Your task to perform on an android device: set the stopwatch Image 0: 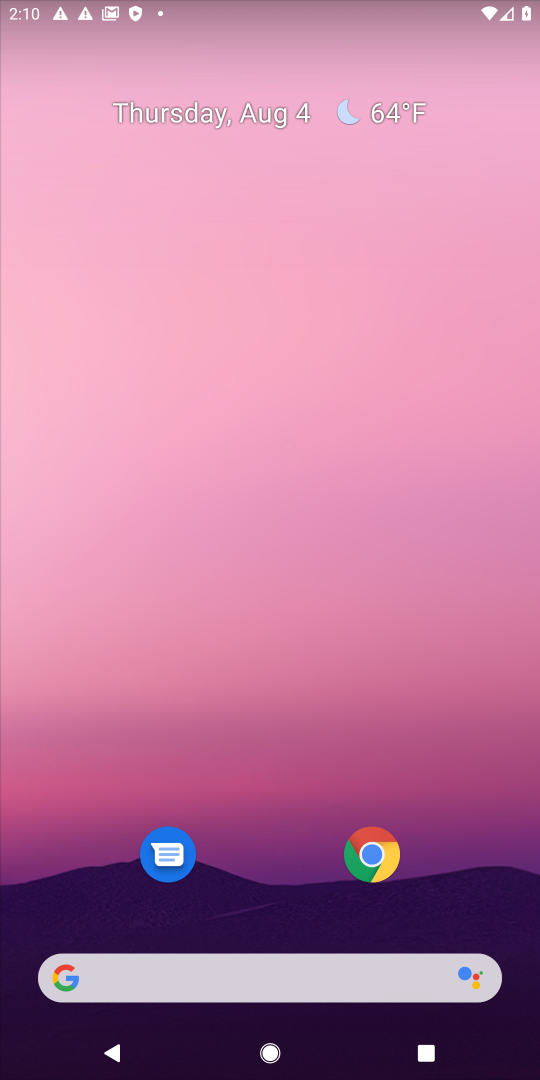
Step 0: drag from (399, 884) to (405, 0)
Your task to perform on an android device: set the stopwatch Image 1: 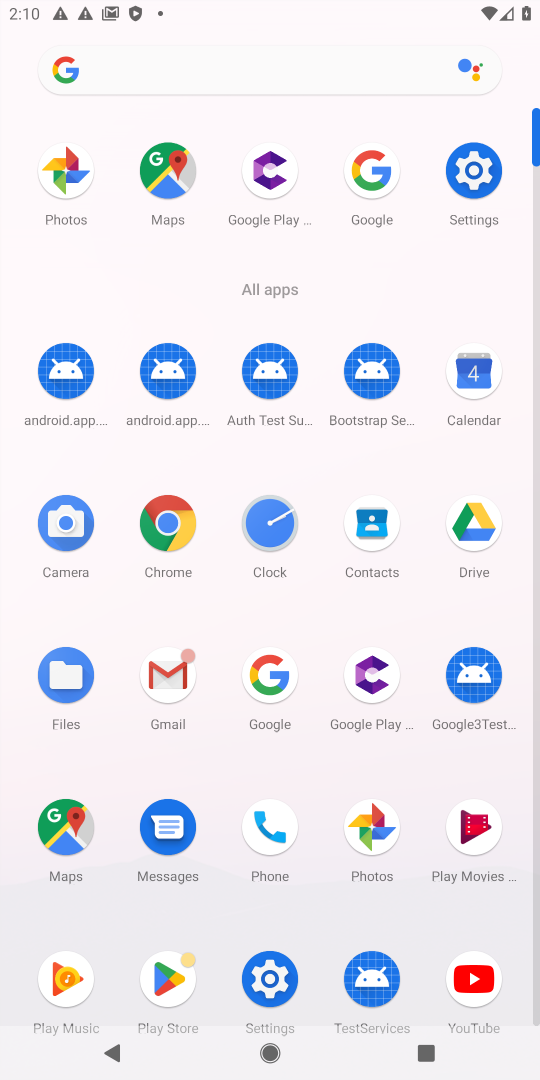
Step 1: click (264, 532)
Your task to perform on an android device: set the stopwatch Image 2: 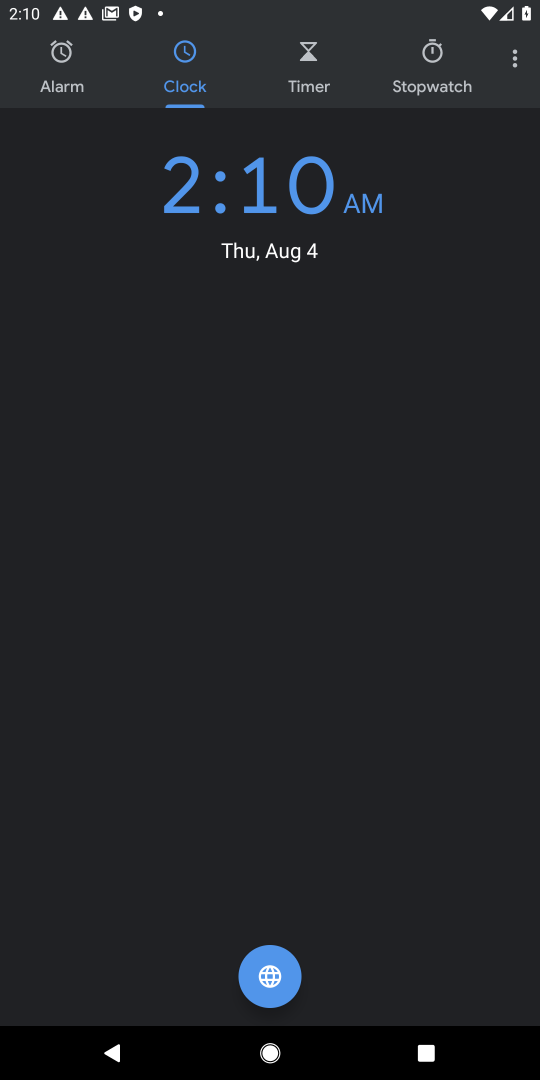
Step 2: click (433, 77)
Your task to perform on an android device: set the stopwatch Image 3: 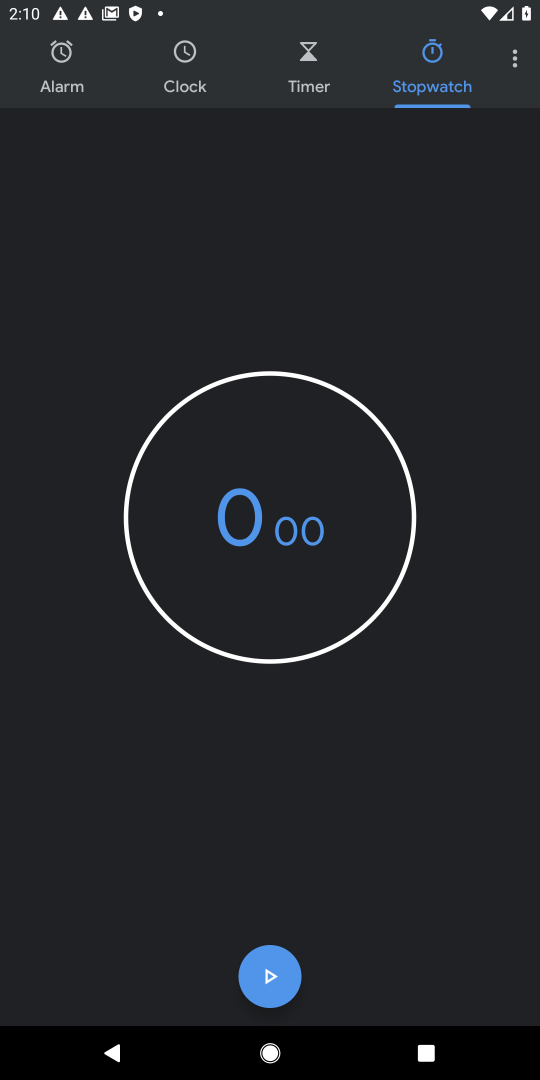
Step 3: task complete